Your task to perform on an android device: Check the weather Image 0: 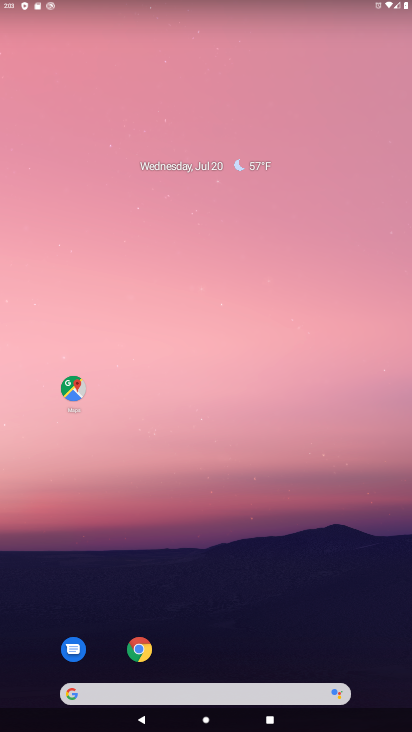
Step 0: click (162, 704)
Your task to perform on an android device: Check the weather Image 1: 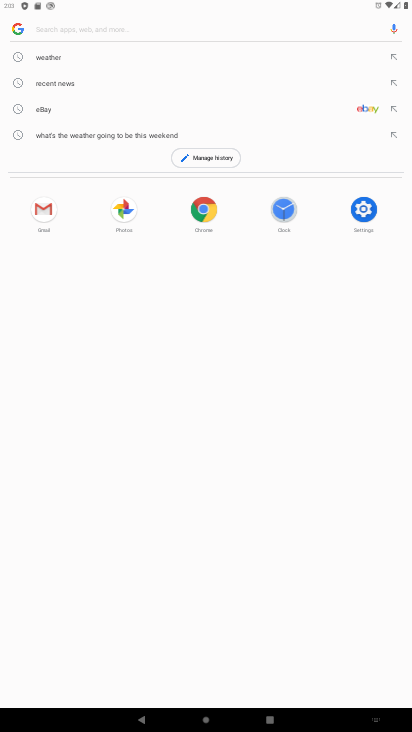
Step 1: click (76, 57)
Your task to perform on an android device: Check the weather Image 2: 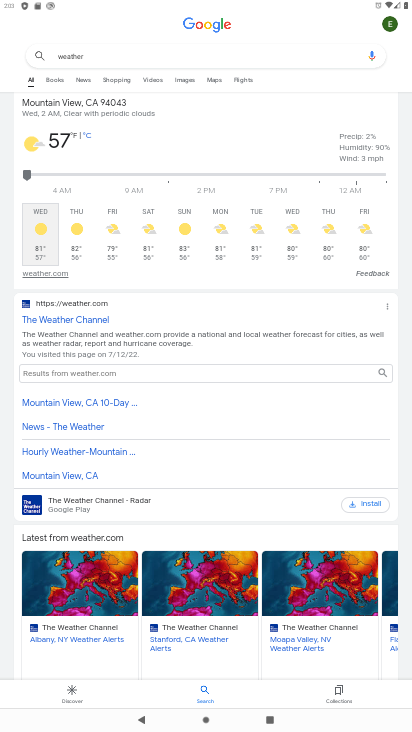
Step 2: task complete